Your task to perform on an android device: visit the assistant section in the google photos Image 0: 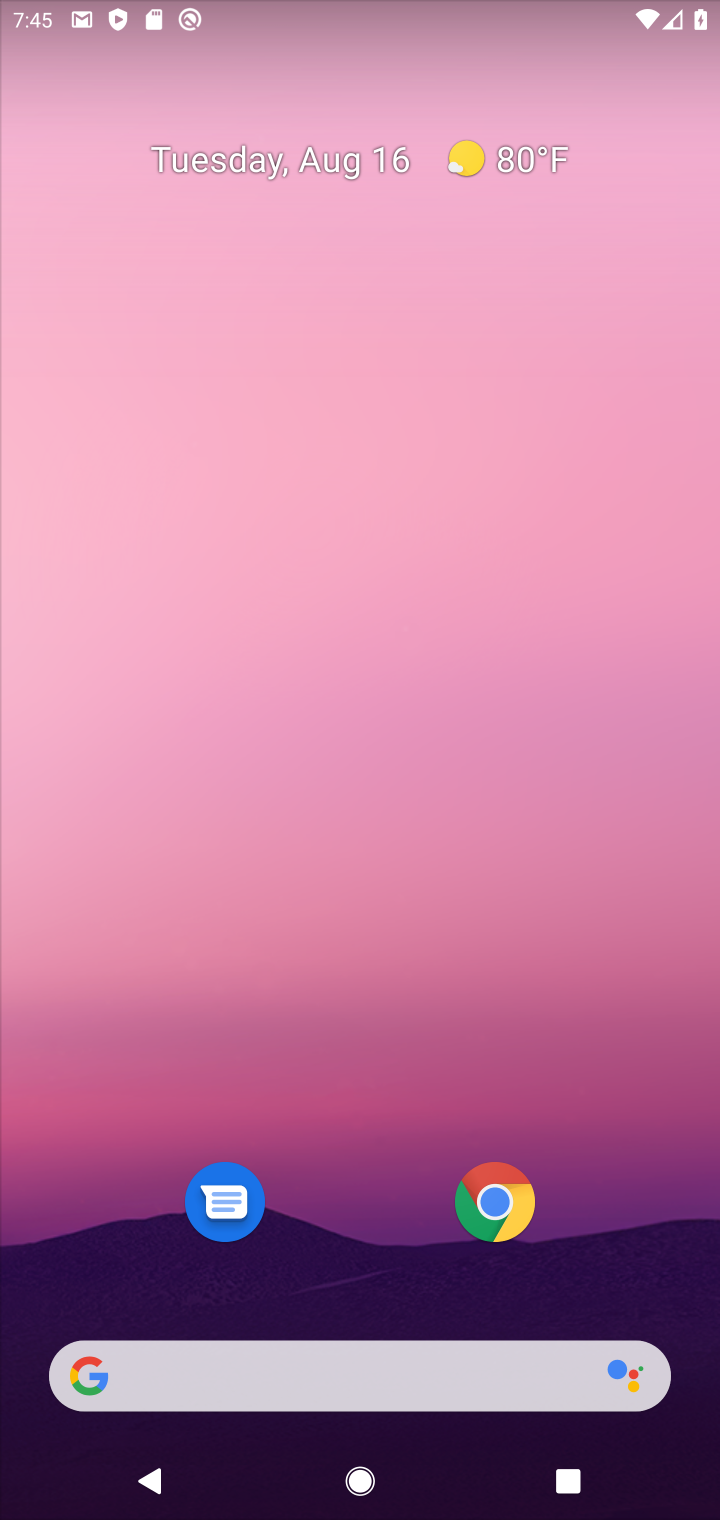
Step 0: drag from (308, 1326) to (204, 173)
Your task to perform on an android device: visit the assistant section in the google photos Image 1: 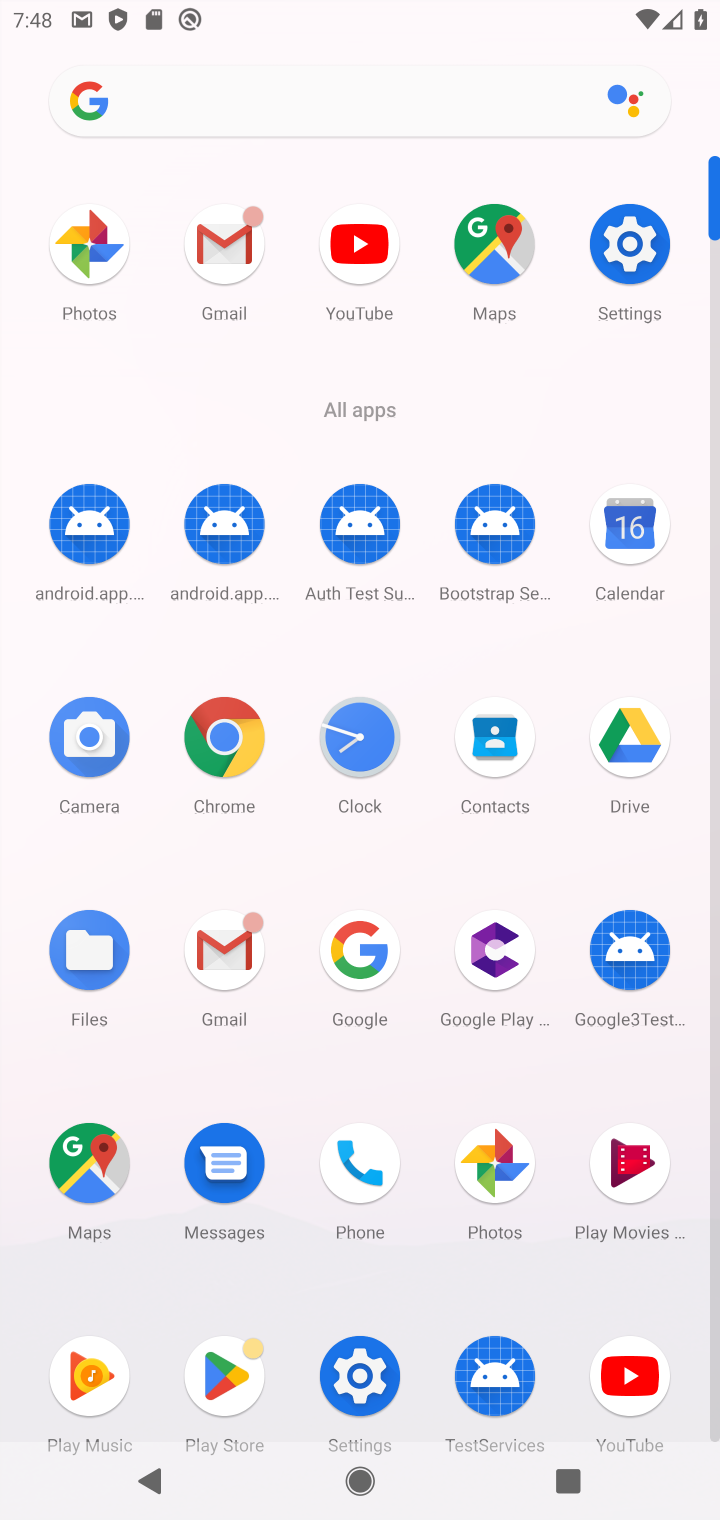
Step 1: click (491, 1189)
Your task to perform on an android device: visit the assistant section in the google photos Image 2: 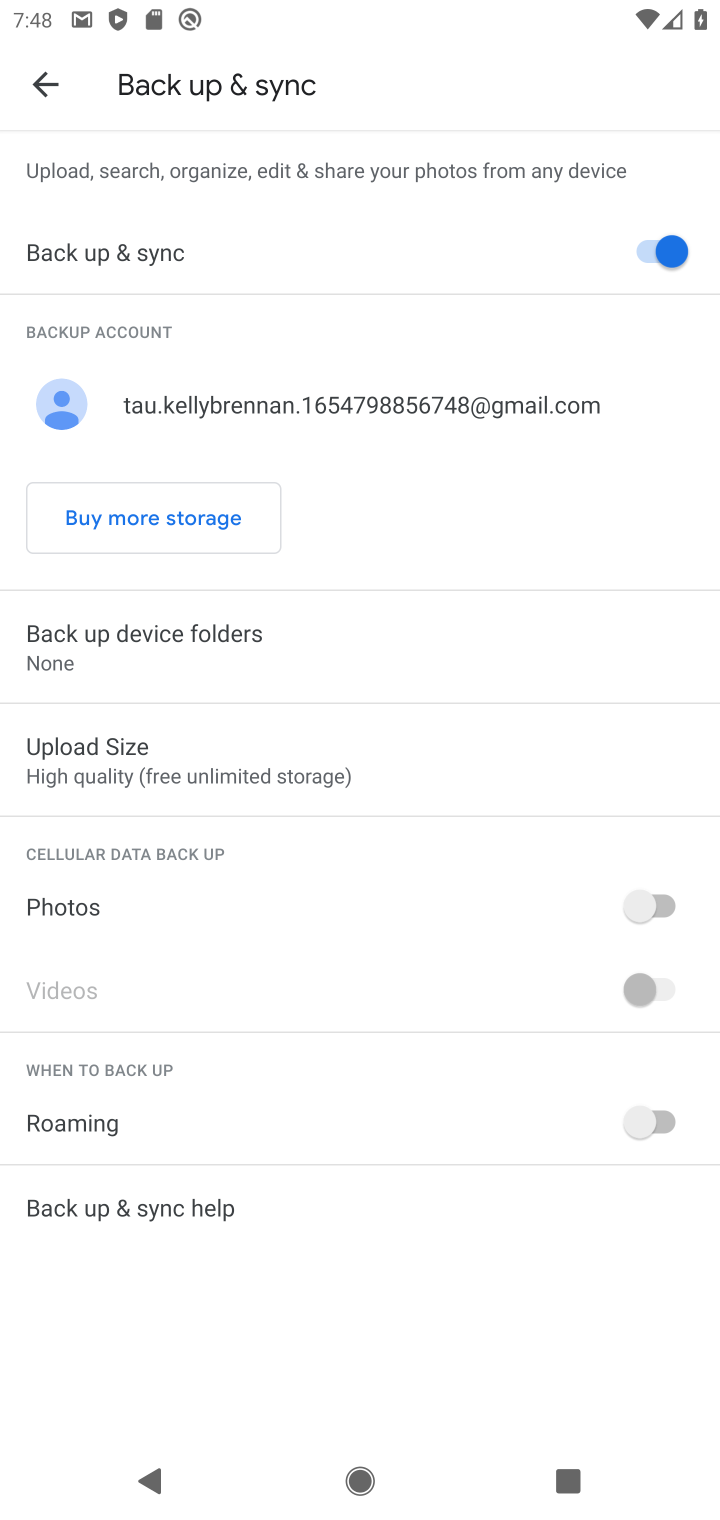
Step 2: click (58, 105)
Your task to perform on an android device: visit the assistant section in the google photos Image 3: 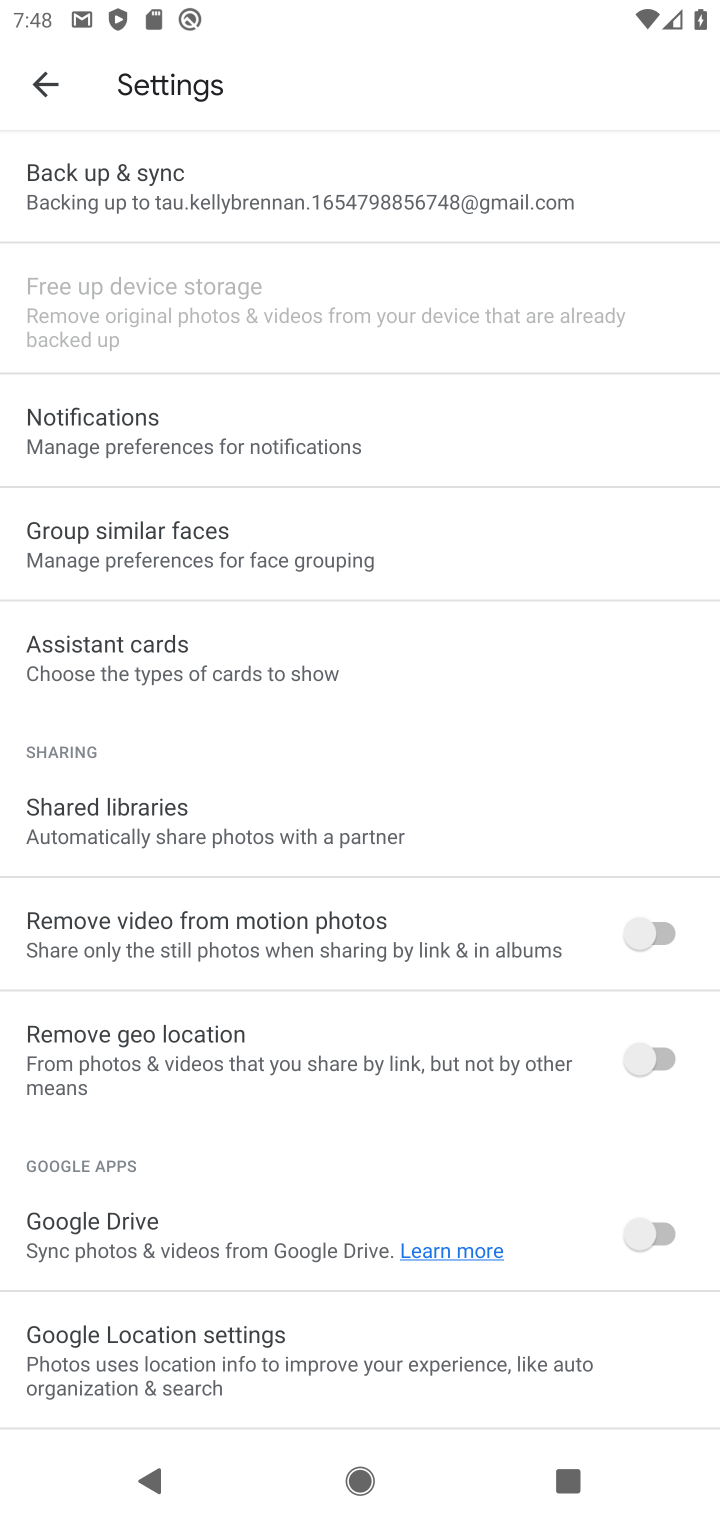
Step 3: click (59, 87)
Your task to perform on an android device: visit the assistant section in the google photos Image 4: 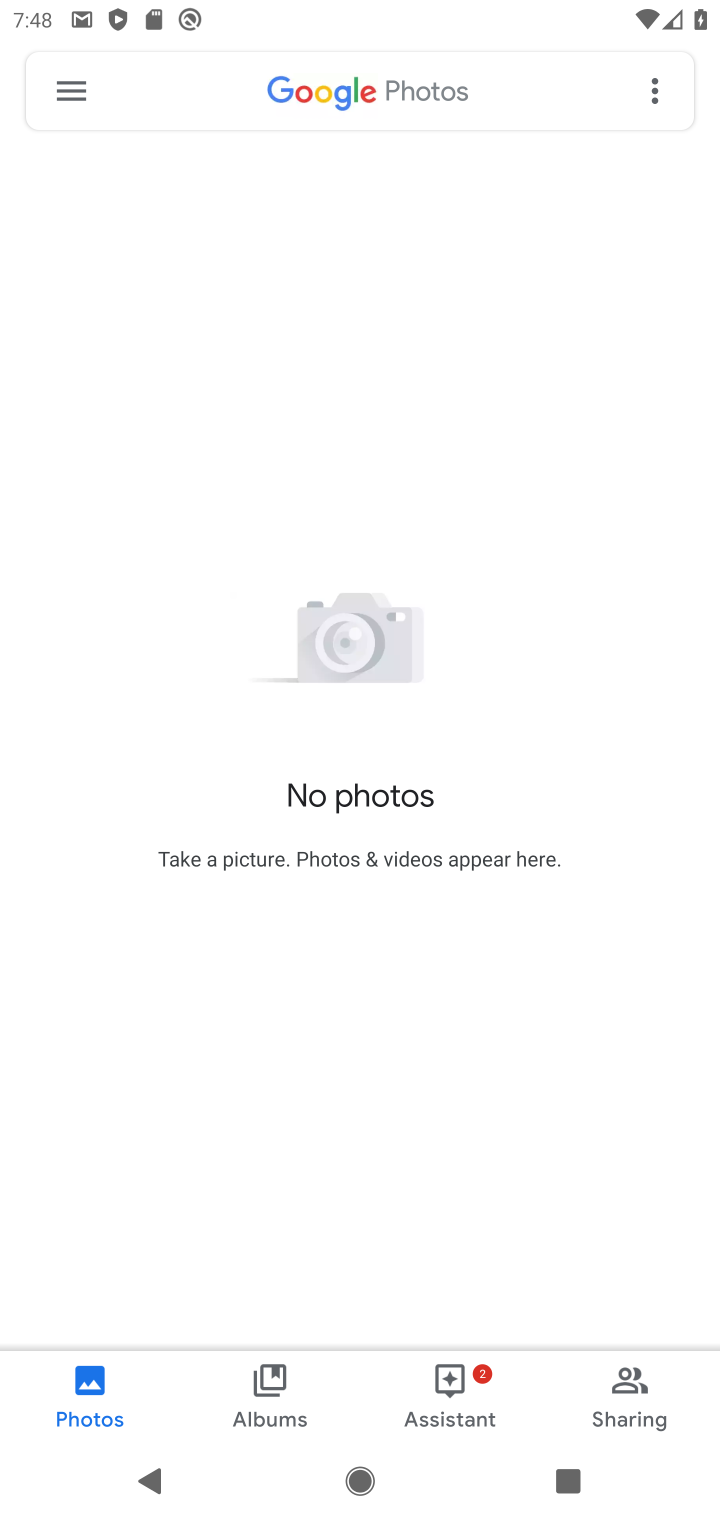
Step 4: click (461, 1351)
Your task to perform on an android device: visit the assistant section in the google photos Image 5: 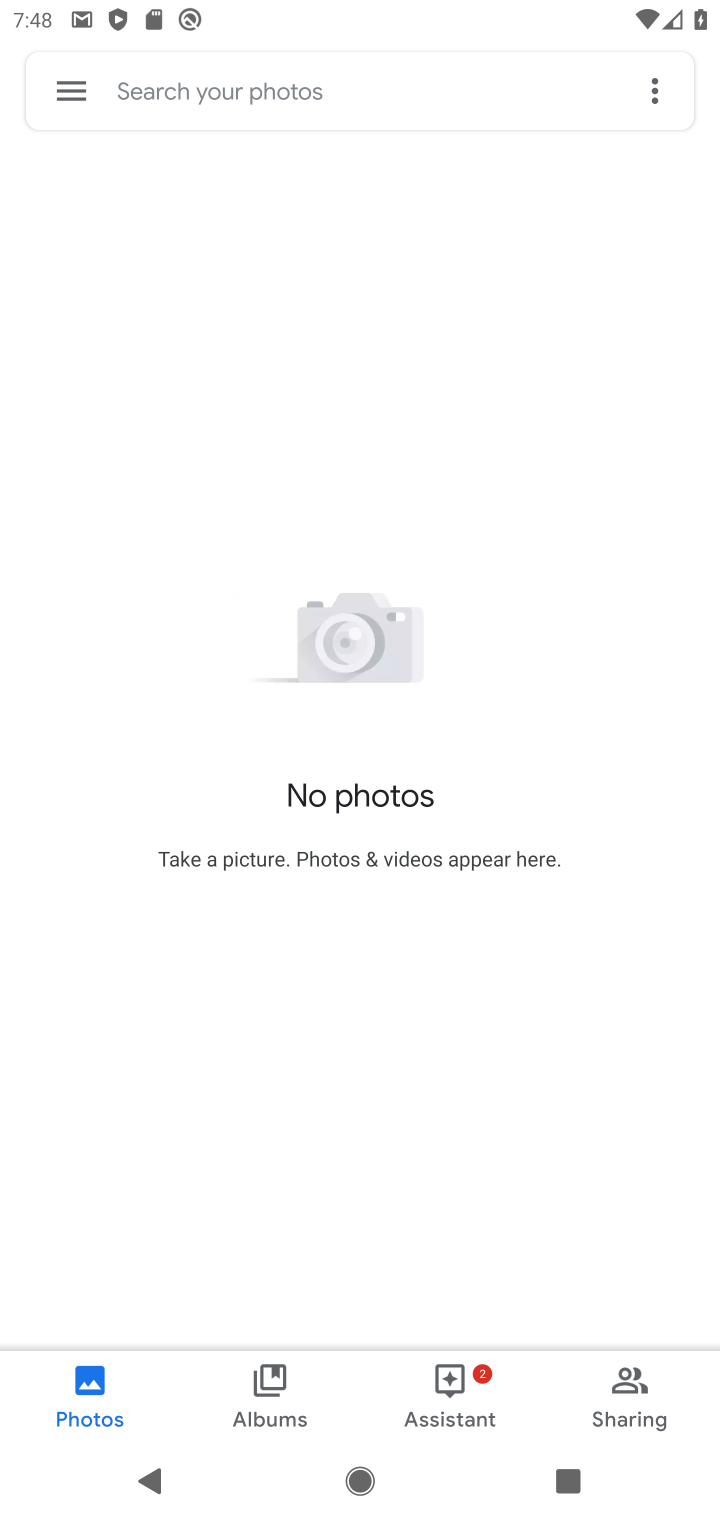
Step 5: task complete